Your task to perform on an android device: Open ESPN.com Image 0: 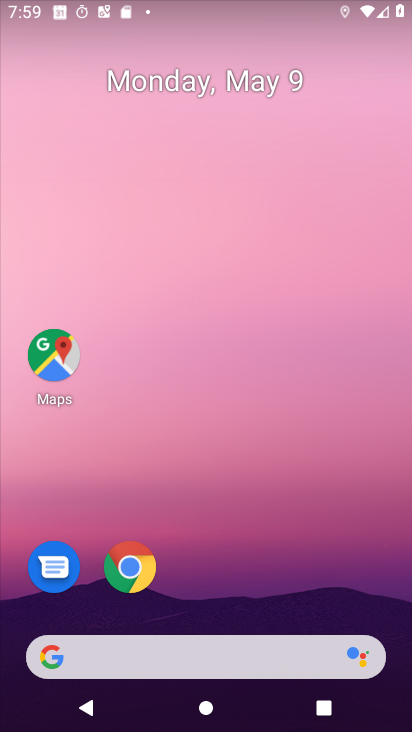
Step 0: click (134, 562)
Your task to perform on an android device: Open ESPN.com Image 1: 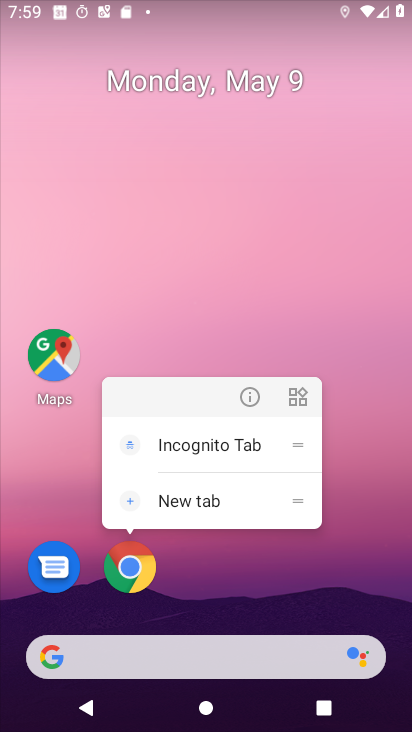
Step 1: click (139, 538)
Your task to perform on an android device: Open ESPN.com Image 2: 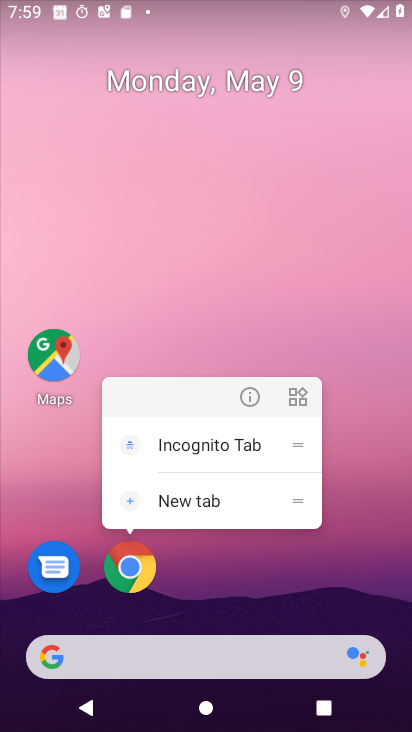
Step 2: click (138, 557)
Your task to perform on an android device: Open ESPN.com Image 3: 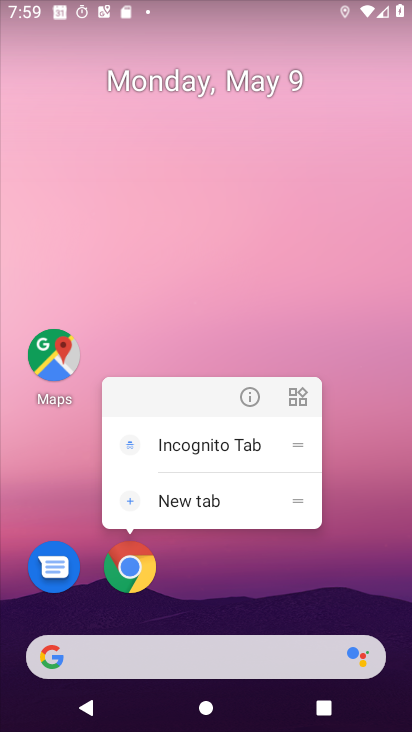
Step 3: click (127, 565)
Your task to perform on an android device: Open ESPN.com Image 4: 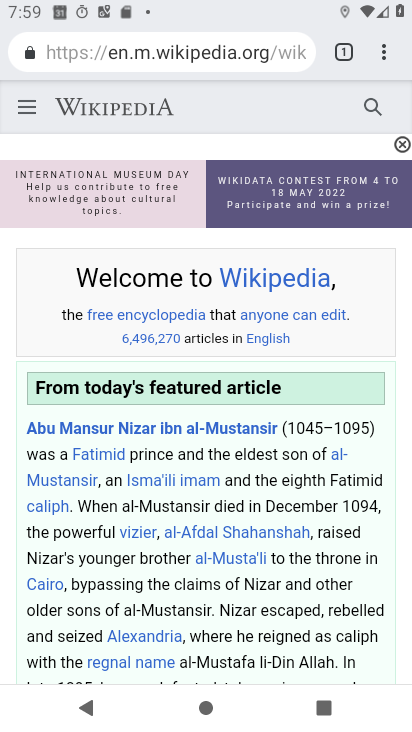
Step 4: click (139, 60)
Your task to perform on an android device: Open ESPN.com Image 5: 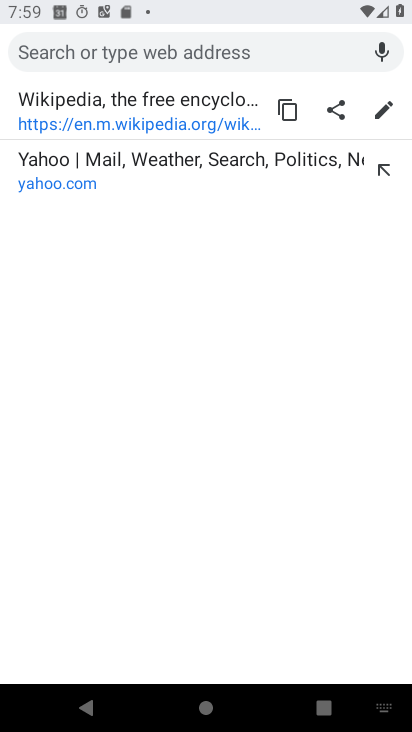
Step 5: type "ESPN.com"
Your task to perform on an android device: Open ESPN.com Image 6: 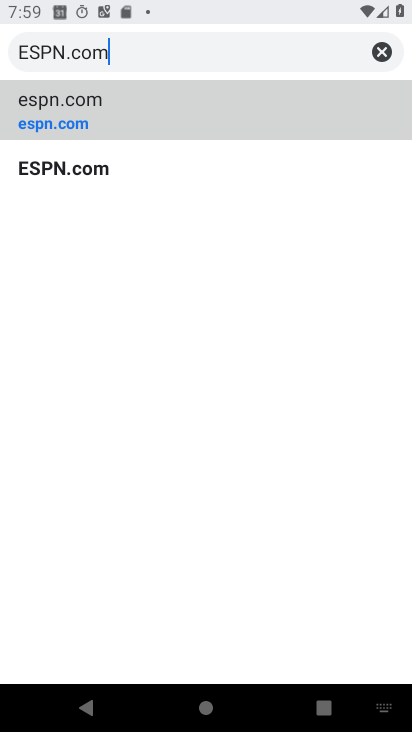
Step 6: click (55, 111)
Your task to perform on an android device: Open ESPN.com Image 7: 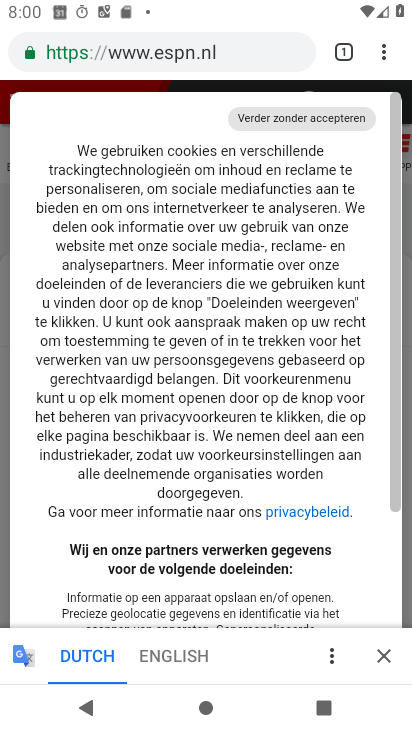
Step 7: task complete